Your task to perform on an android device: turn off picture-in-picture Image 0: 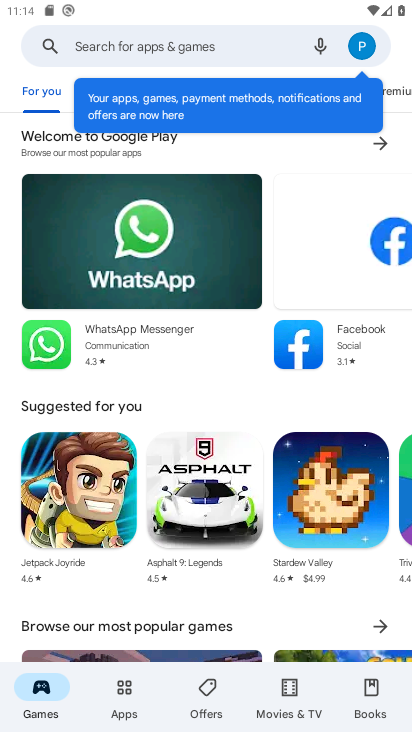
Step 0: press home button
Your task to perform on an android device: turn off picture-in-picture Image 1: 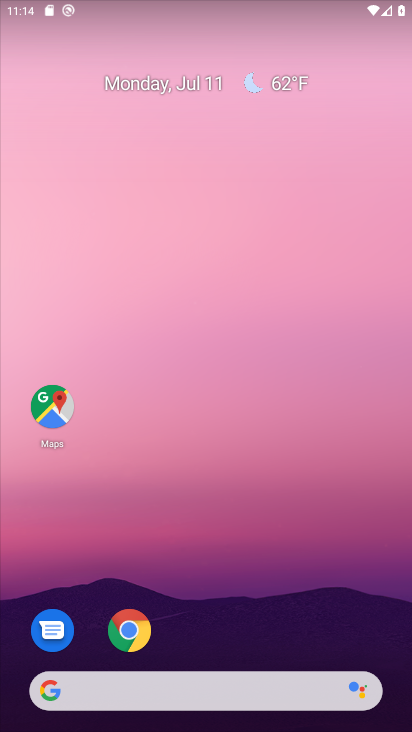
Step 1: click (125, 630)
Your task to perform on an android device: turn off picture-in-picture Image 2: 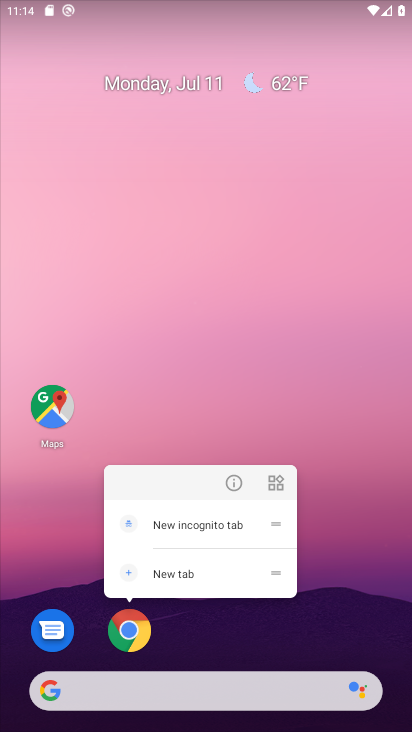
Step 2: click (237, 482)
Your task to perform on an android device: turn off picture-in-picture Image 3: 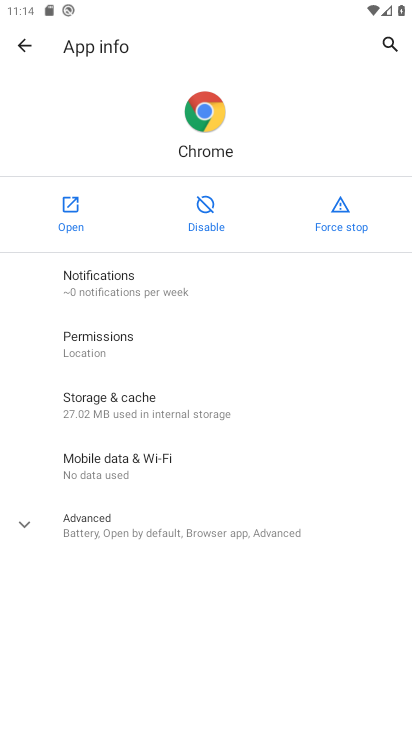
Step 3: click (30, 523)
Your task to perform on an android device: turn off picture-in-picture Image 4: 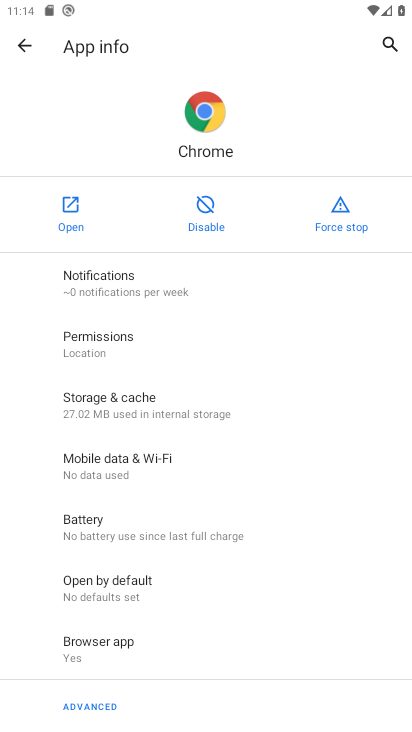
Step 4: drag from (235, 572) to (220, 211)
Your task to perform on an android device: turn off picture-in-picture Image 5: 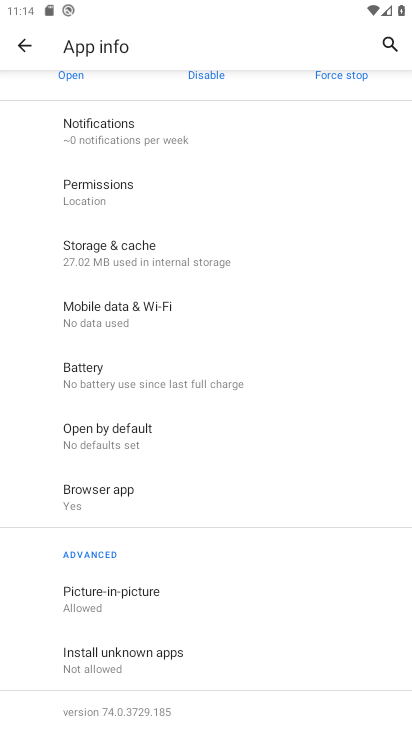
Step 5: click (127, 592)
Your task to perform on an android device: turn off picture-in-picture Image 6: 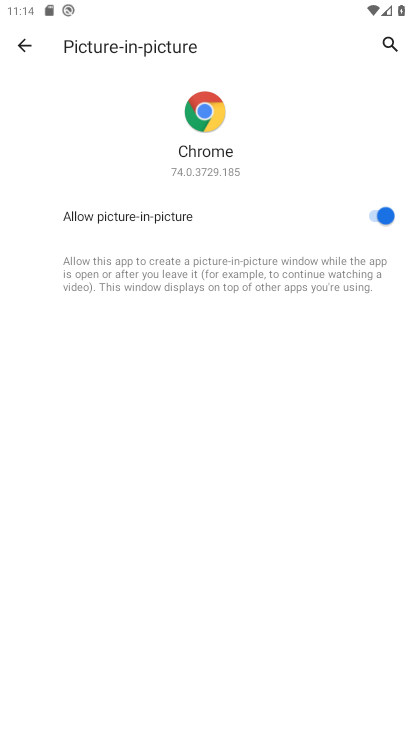
Step 6: click (380, 211)
Your task to perform on an android device: turn off picture-in-picture Image 7: 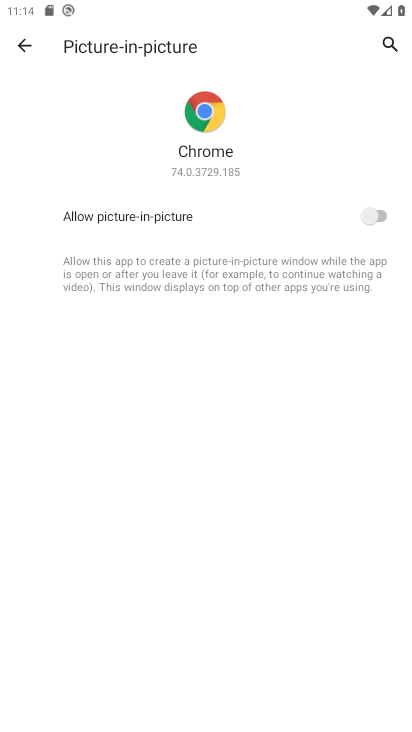
Step 7: task complete